Your task to perform on an android device: toggle wifi Image 0: 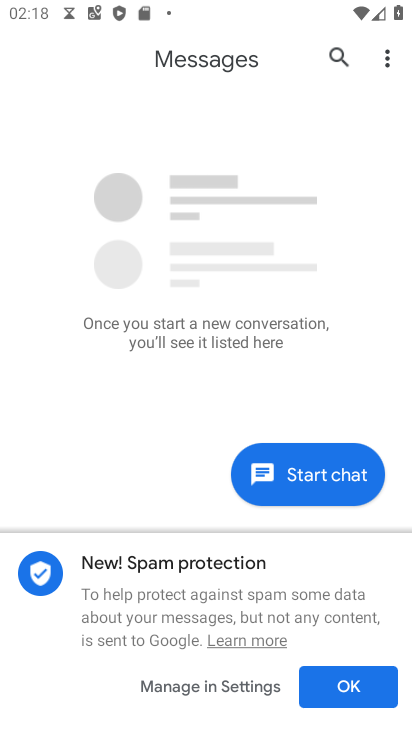
Step 0: press home button
Your task to perform on an android device: toggle wifi Image 1: 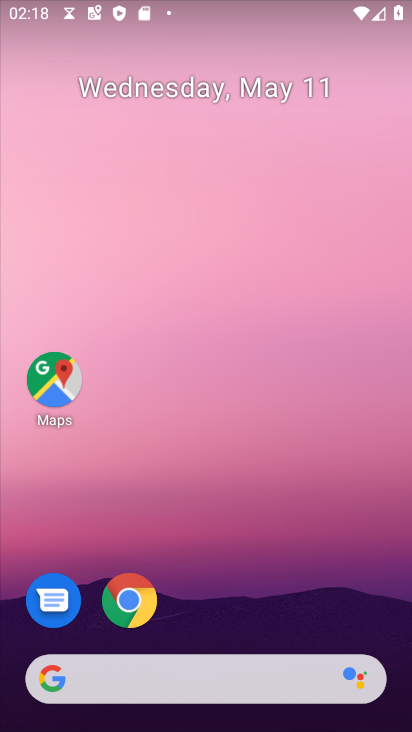
Step 1: drag from (241, 455) to (265, 164)
Your task to perform on an android device: toggle wifi Image 2: 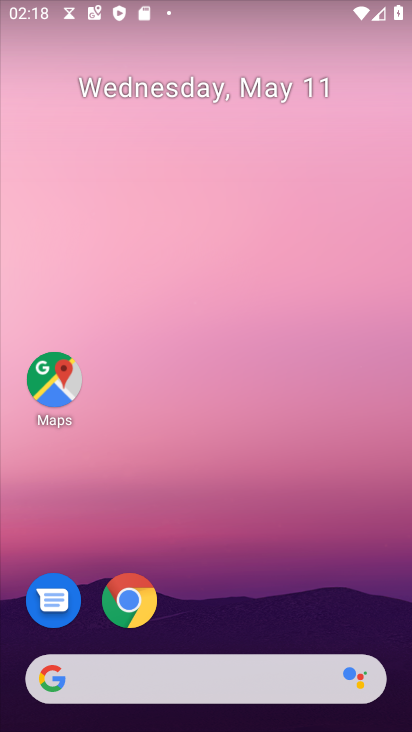
Step 2: drag from (210, 532) to (246, 188)
Your task to perform on an android device: toggle wifi Image 3: 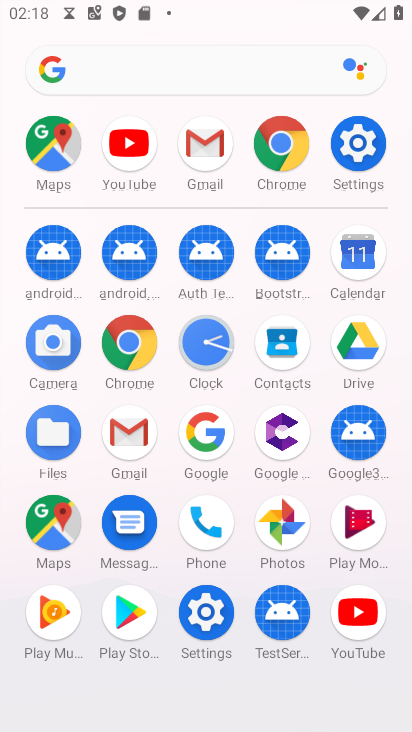
Step 3: click (368, 141)
Your task to perform on an android device: toggle wifi Image 4: 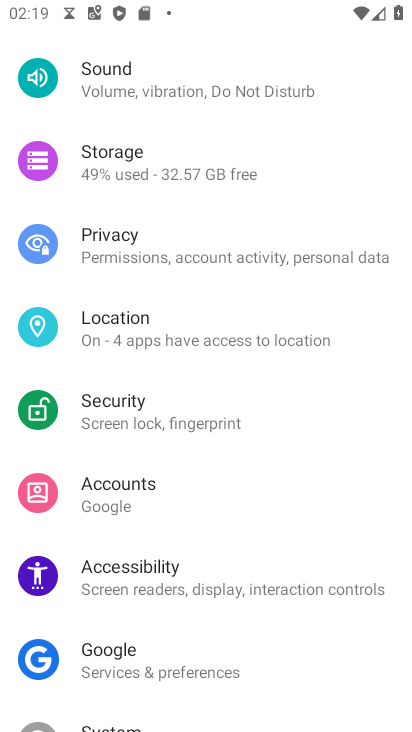
Step 4: drag from (160, 97) to (198, 586)
Your task to perform on an android device: toggle wifi Image 5: 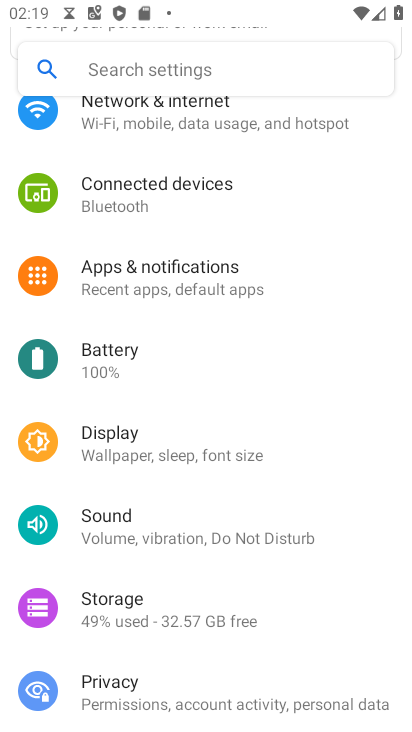
Step 5: drag from (167, 134) to (187, 284)
Your task to perform on an android device: toggle wifi Image 6: 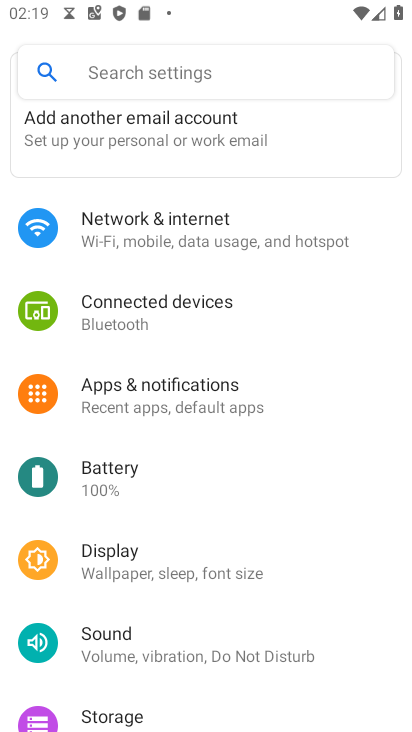
Step 6: click (161, 213)
Your task to perform on an android device: toggle wifi Image 7: 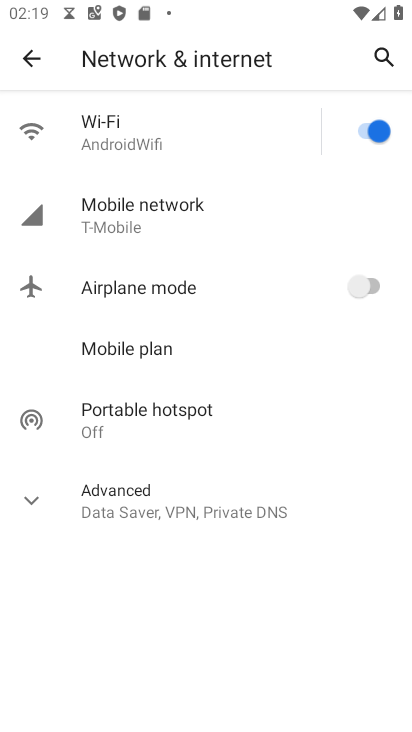
Step 7: click (147, 214)
Your task to perform on an android device: toggle wifi Image 8: 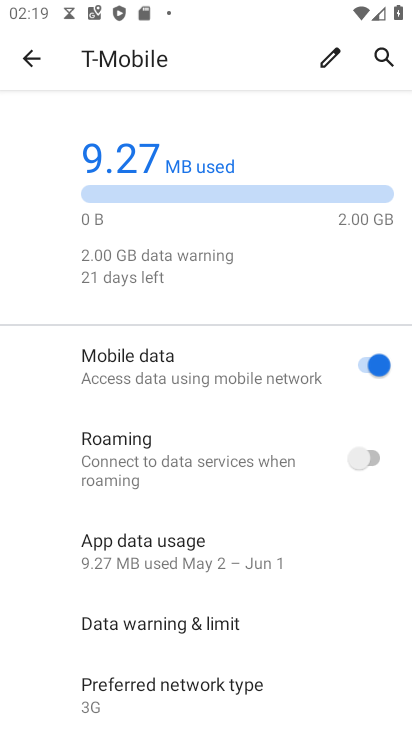
Step 8: click (17, 42)
Your task to perform on an android device: toggle wifi Image 9: 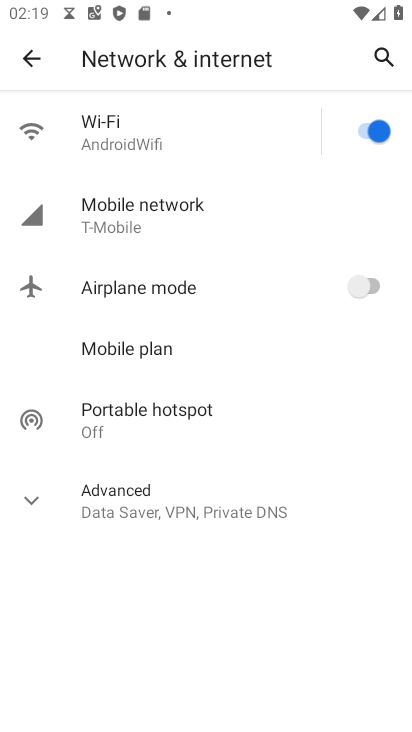
Step 9: click (381, 128)
Your task to perform on an android device: toggle wifi Image 10: 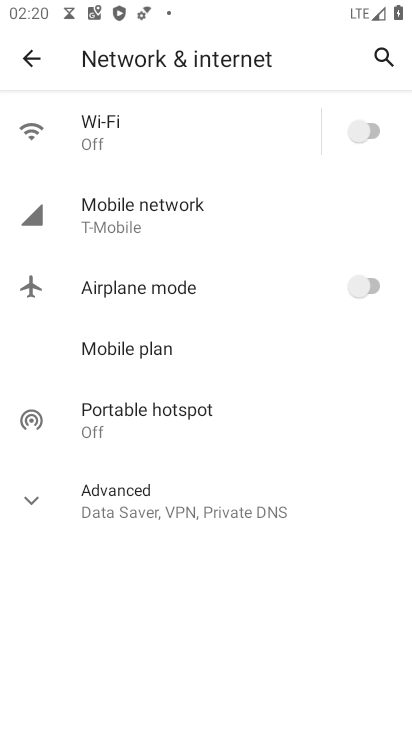
Step 10: task complete